Your task to perform on an android device: Open the phone app and click the voicemail tab. Image 0: 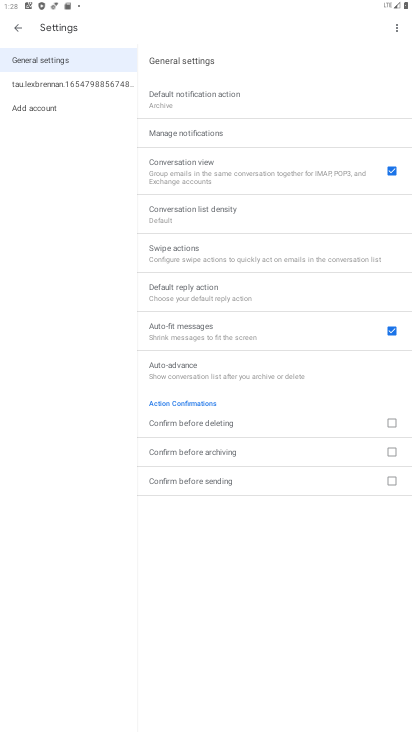
Step 0: press home button
Your task to perform on an android device: Open the phone app and click the voicemail tab. Image 1: 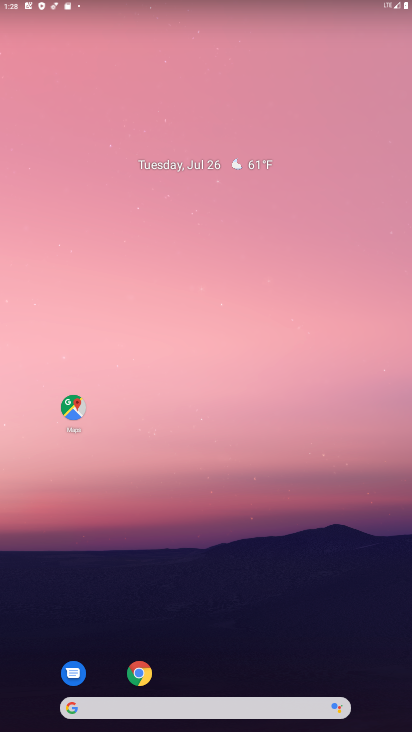
Step 1: drag from (191, 570) to (147, 148)
Your task to perform on an android device: Open the phone app and click the voicemail tab. Image 2: 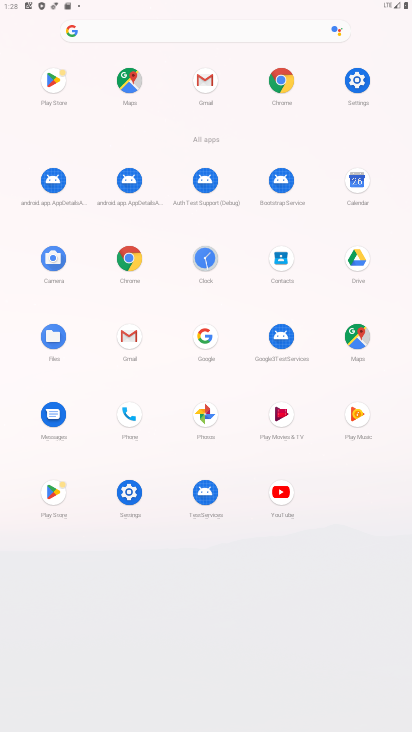
Step 2: click (127, 410)
Your task to perform on an android device: Open the phone app and click the voicemail tab. Image 3: 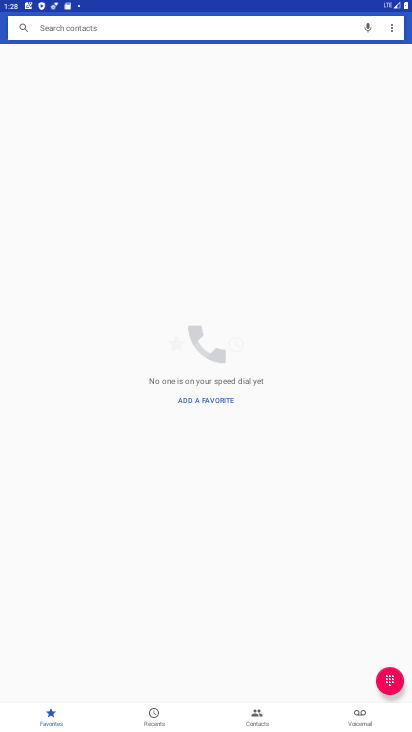
Step 3: click (361, 722)
Your task to perform on an android device: Open the phone app and click the voicemail tab. Image 4: 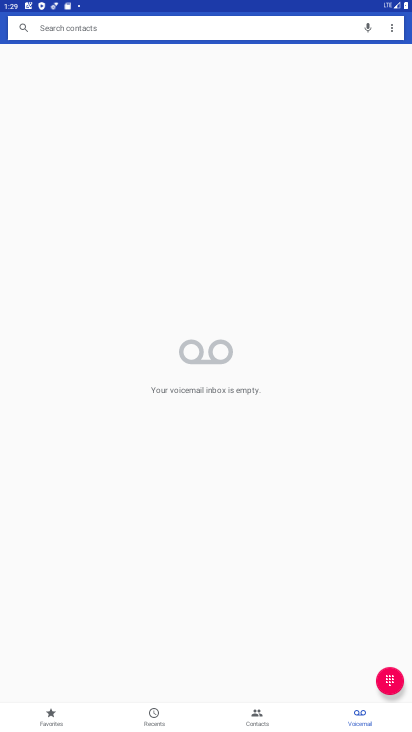
Step 4: task complete